Your task to perform on an android device: Open calendar and show me the third week of next month Image 0: 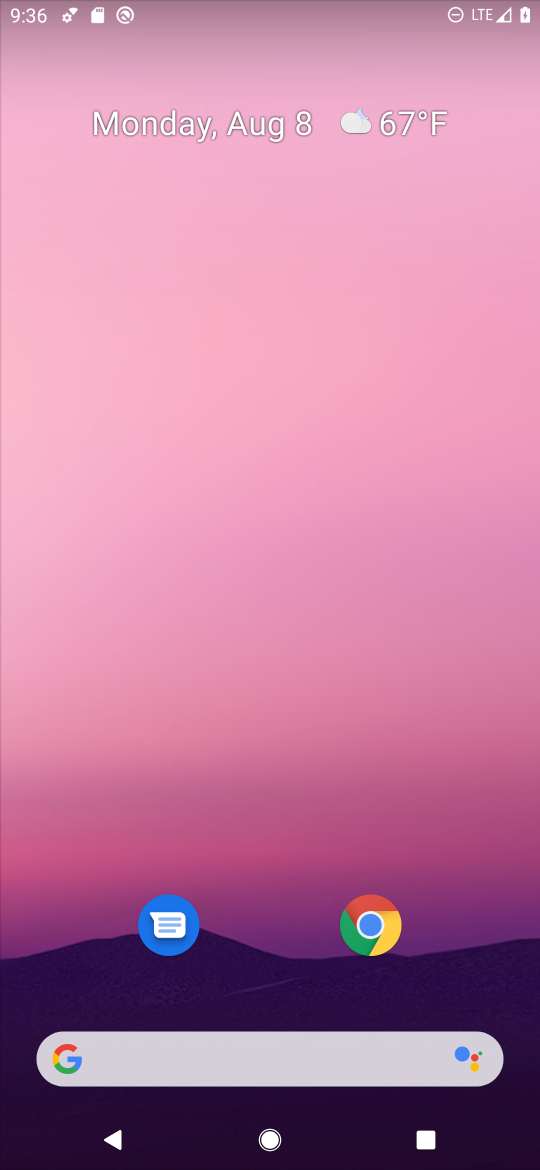
Step 0: drag from (251, 935) to (415, 54)
Your task to perform on an android device: Open calendar and show me the third week of next month Image 1: 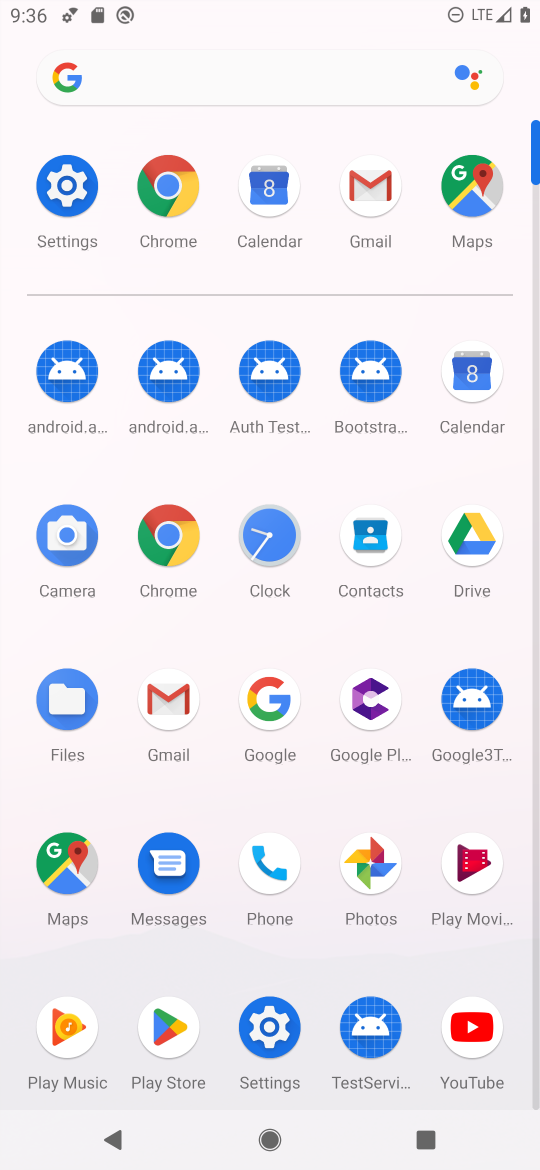
Step 1: click (466, 391)
Your task to perform on an android device: Open calendar and show me the third week of next month Image 2: 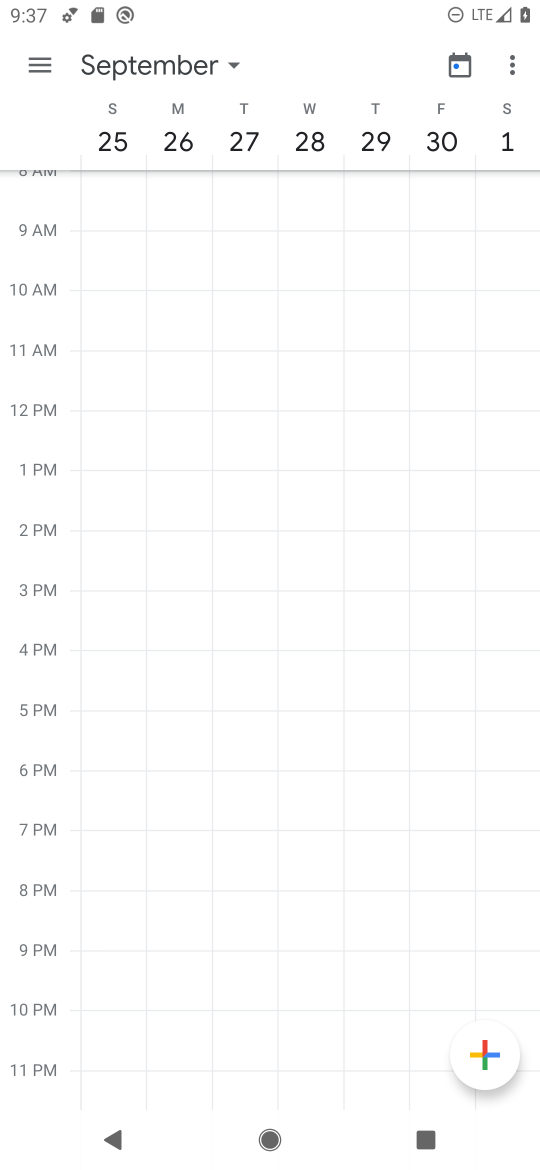
Step 2: click (213, 73)
Your task to perform on an android device: Open calendar and show me the third week of next month Image 3: 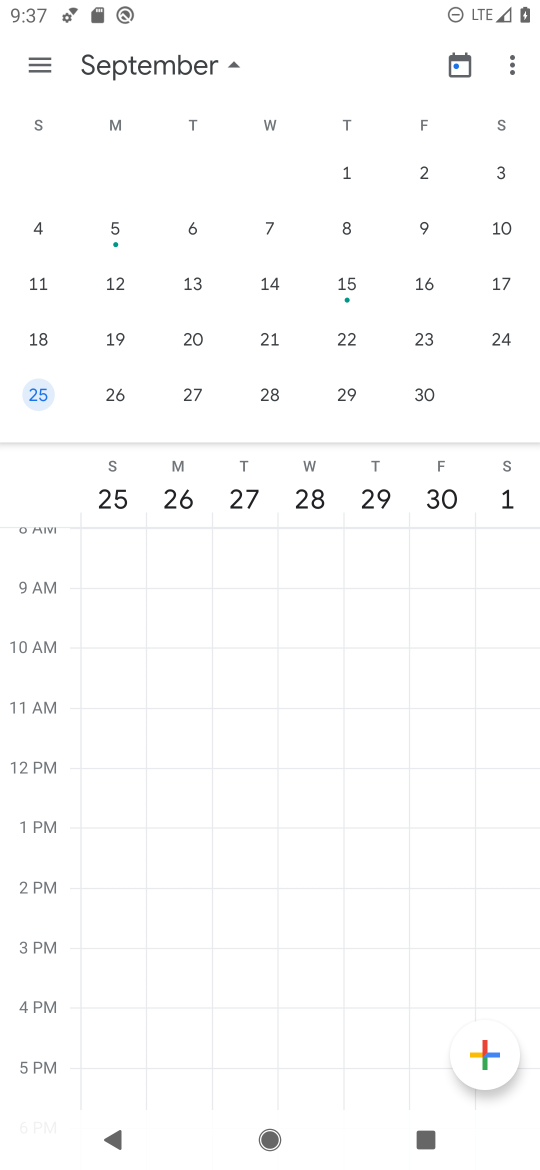
Step 3: click (190, 336)
Your task to perform on an android device: Open calendar and show me the third week of next month Image 4: 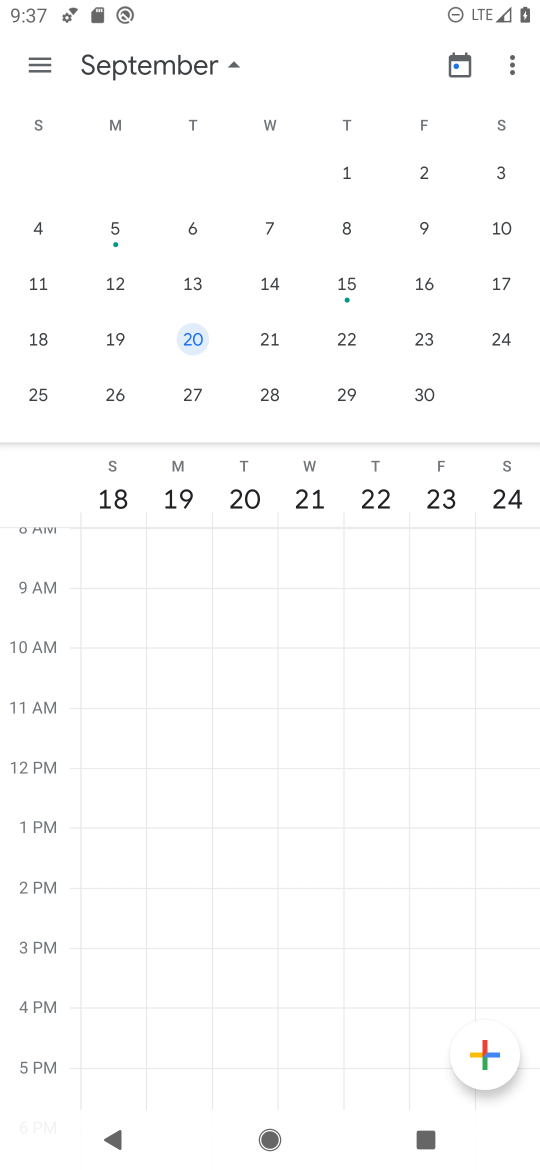
Step 4: task complete